Your task to perform on an android device: turn on bluetooth scan Image 0: 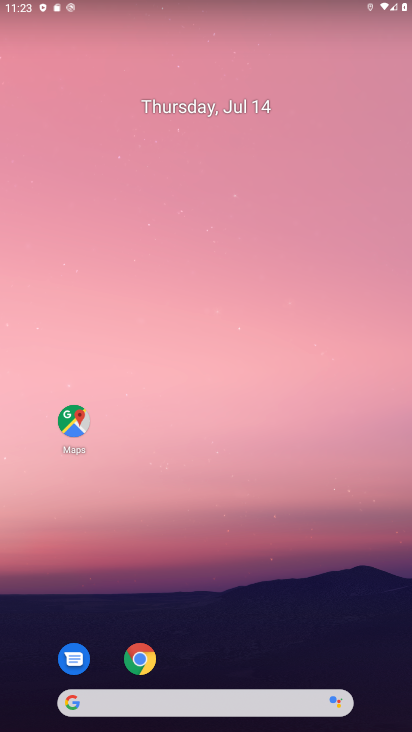
Step 0: drag from (232, 598) to (221, 182)
Your task to perform on an android device: turn on bluetooth scan Image 1: 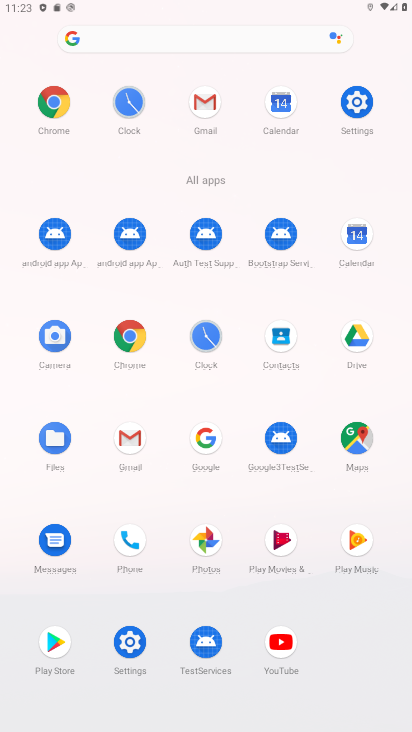
Step 1: click (347, 103)
Your task to perform on an android device: turn on bluetooth scan Image 2: 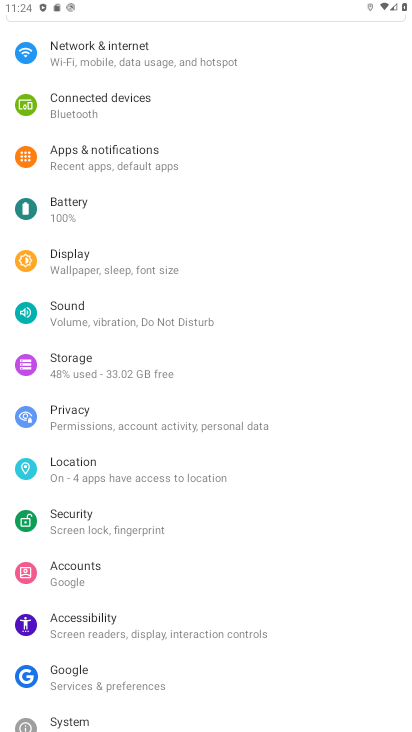
Step 2: drag from (182, 564) to (178, 710)
Your task to perform on an android device: turn on bluetooth scan Image 3: 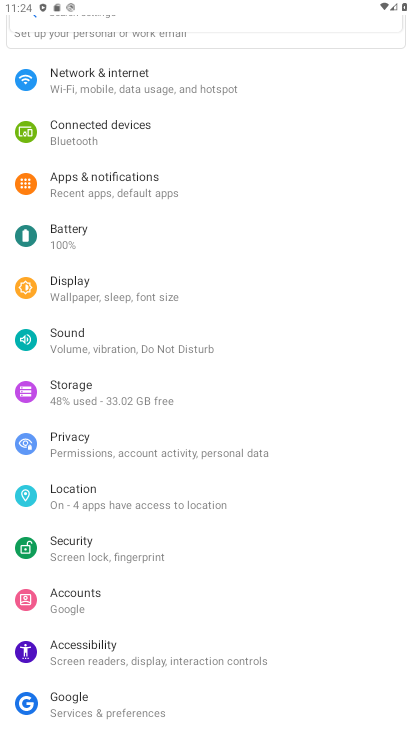
Step 3: drag from (235, 120) to (200, 702)
Your task to perform on an android device: turn on bluetooth scan Image 4: 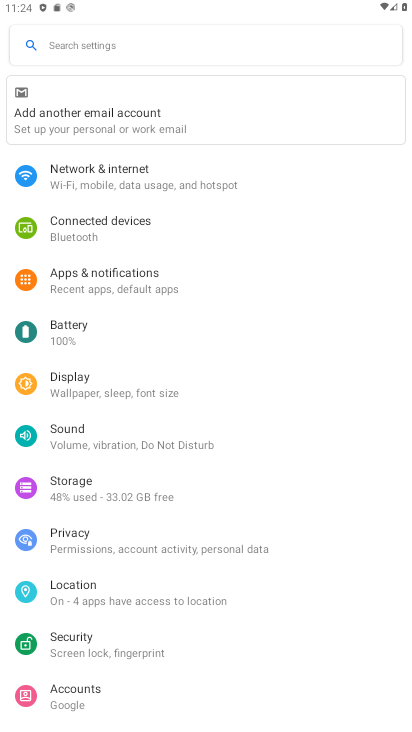
Step 4: click (123, 38)
Your task to perform on an android device: turn on bluetooth scan Image 5: 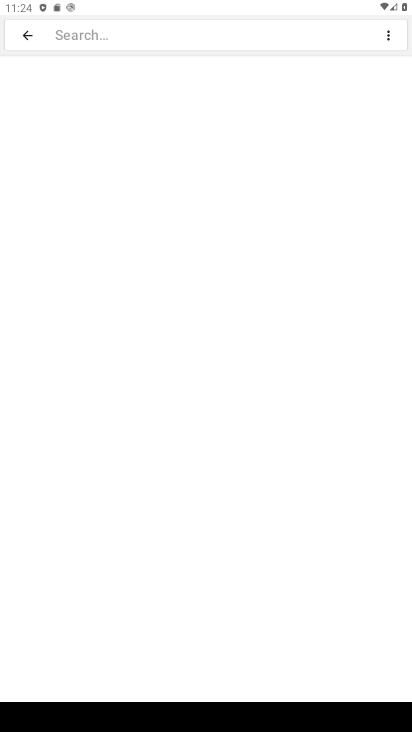
Step 5: type "bluetooth scan "
Your task to perform on an android device: turn on bluetooth scan Image 6: 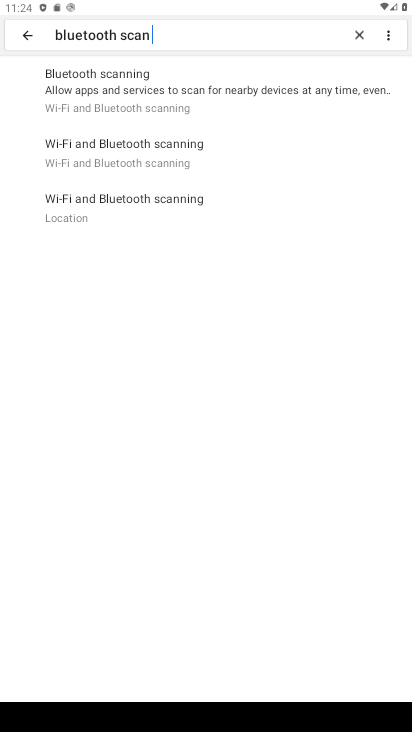
Step 6: click (133, 86)
Your task to perform on an android device: turn on bluetooth scan Image 7: 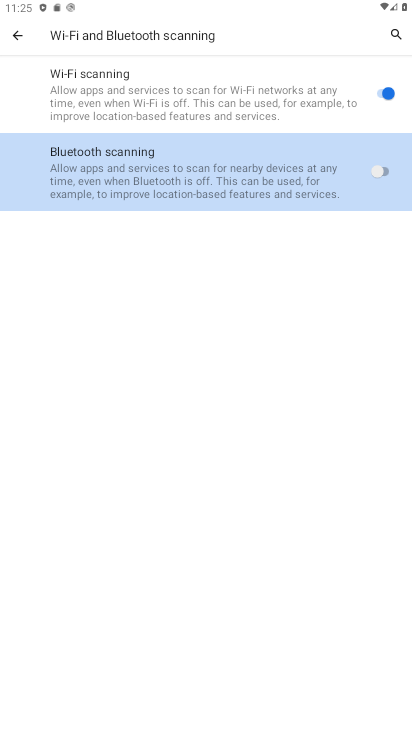
Step 7: click (393, 170)
Your task to perform on an android device: turn on bluetooth scan Image 8: 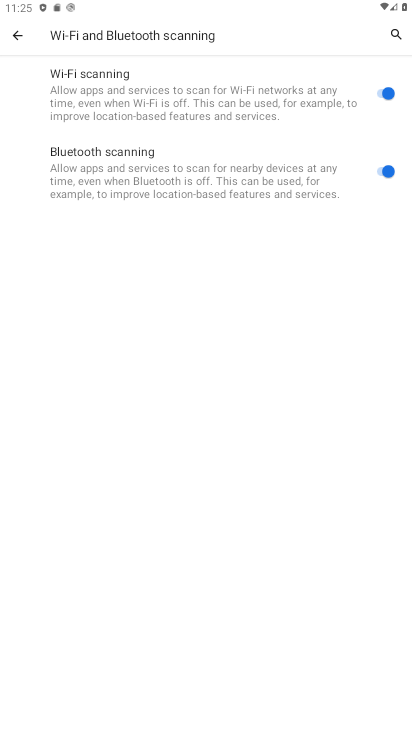
Step 8: task complete